Your task to perform on an android device: Search for the best rated book on Goodreads. Image 0: 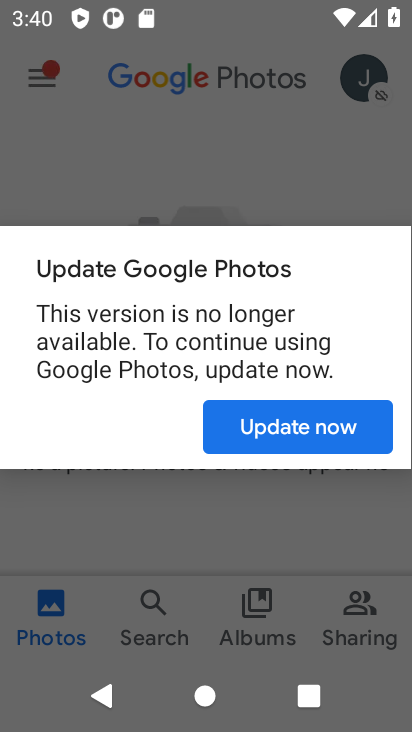
Step 0: press home button
Your task to perform on an android device: Search for the best rated book on Goodreads. Image 1: 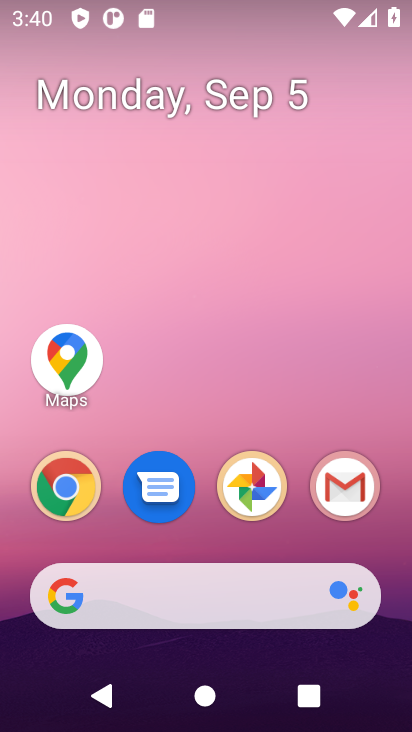
Step 1: drag from (210, 528) to (281, 0)
Your task to perform on an android device: Search for the best rated book on Goodreads. Image 2: 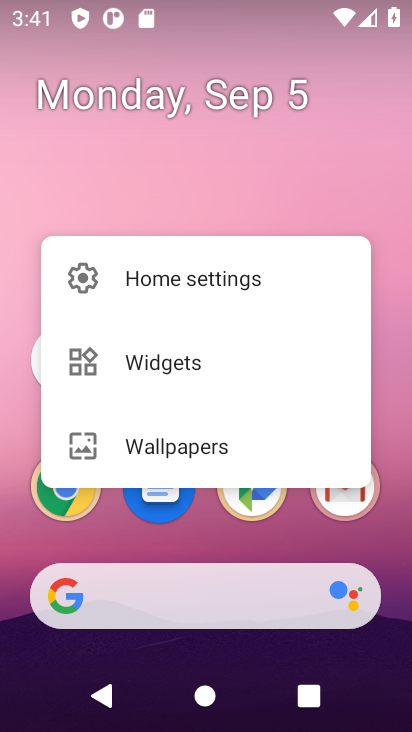
Step 2: click (212, 194)
Your task to perform on an android device: Search for the best rated book on Goodreads. Image 3: 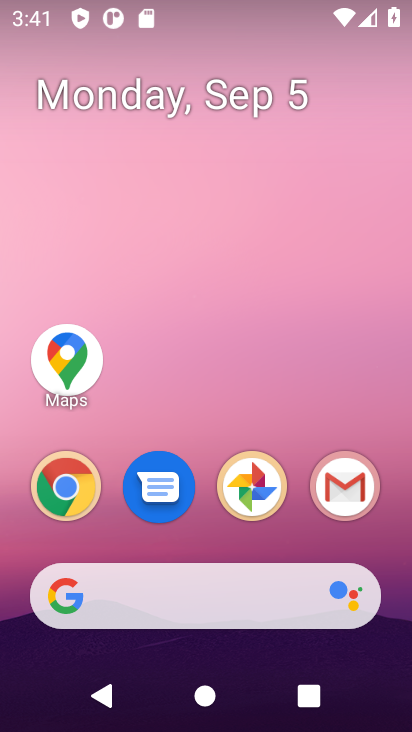
Step 3: click (71, 482)
Your task to perform on an android device: Search for the best rated book on Goodreads. Image 4: 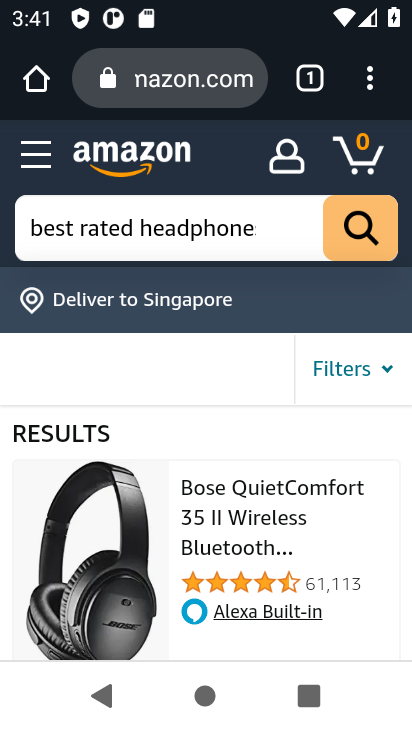
Step 4: click (196, 82)
Your task to perform on an android device: Search for the best rated book on Goodreads. Image 5: 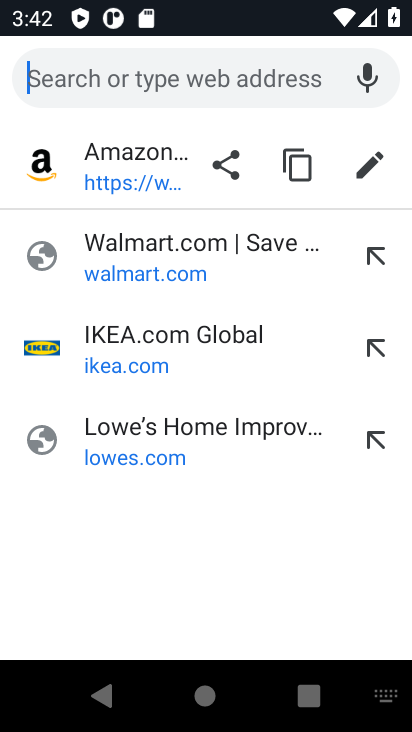
Step 5: type " Goodreads."
Your task to perform on an android device: Search for the best rated book on Goodreads. Image 6: 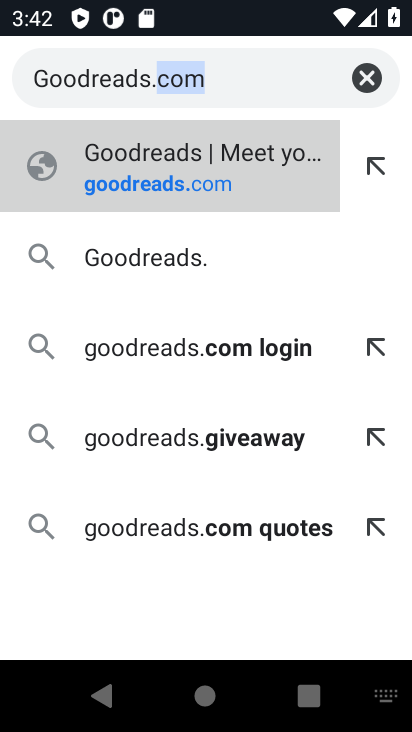
Step 6: click (131, 185)
Your task to perform on an android device: Search for the best rated book on Goodreads. Image 7: 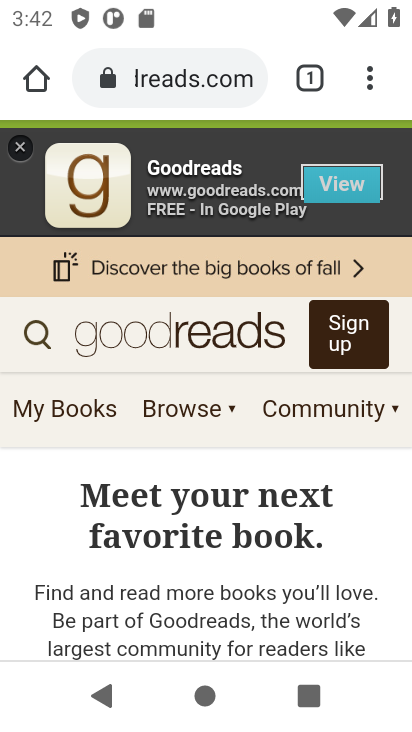
Step 7: click (31, 323)
Your task to perform on an android device: Search for the best rated book on Goodreads. Image 8: 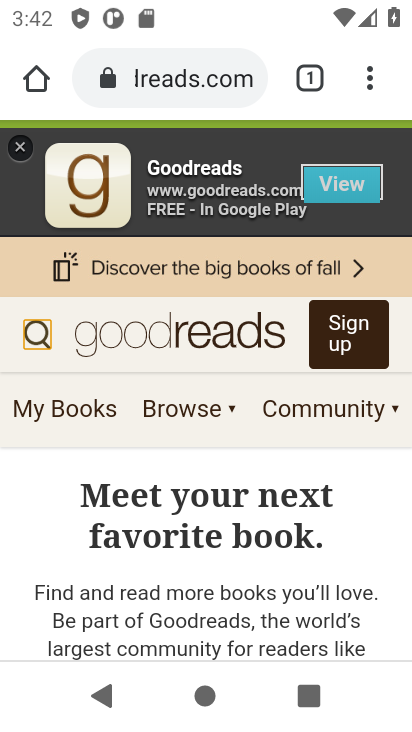
Step 8: click (33, 328)
Your task to perform on an android device: Search for the best rated book on Goodreads. Image 9: 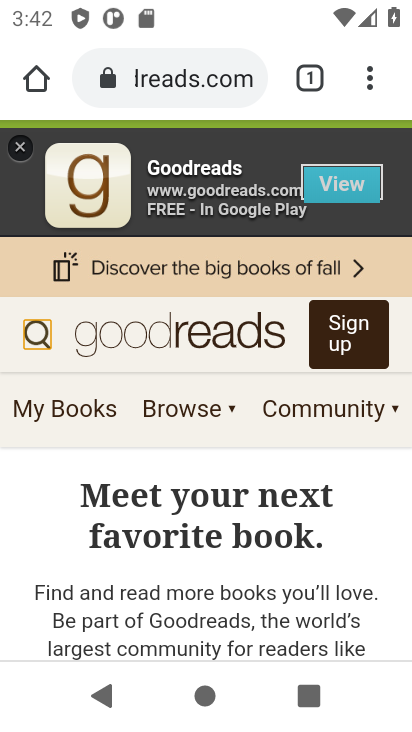
Step 9: click (32, 328)
Your task to perform on an android device: Search for the best rated book on Goodreads. Image 10: 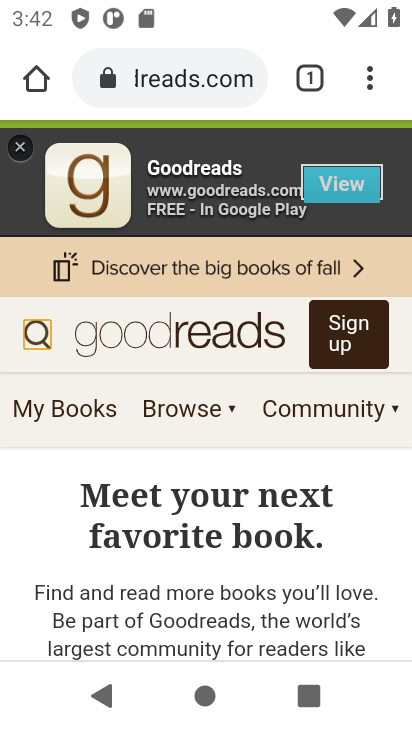
Step 10: click (33, 323)
Your task to perform on an android device: Search for the best rated book on Goodreads. Image 11: 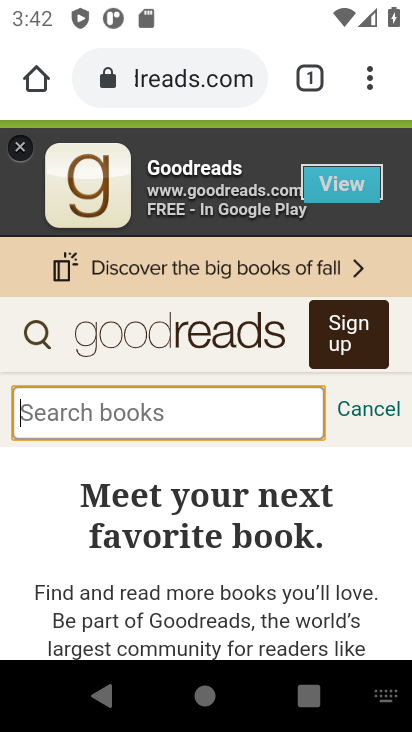
Step 11: type " the best rated book "
Your task to perform on an android device: Search for the best rated book on Goodreads. Image 12: 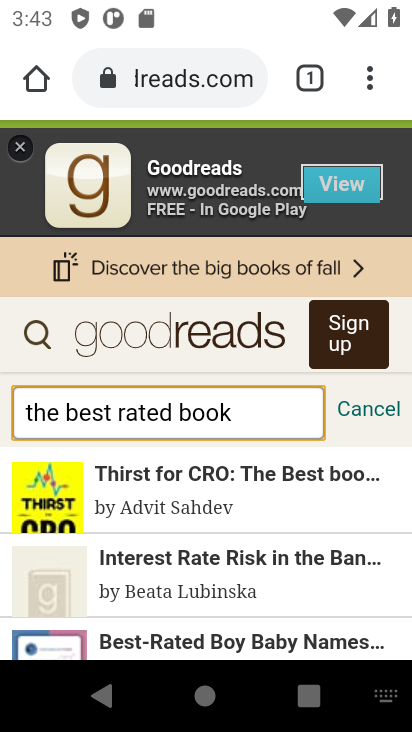
Step 12: task complete